Your task to perform on an android device: uninstall "ZOOM Cloud Meetings" Image 0: 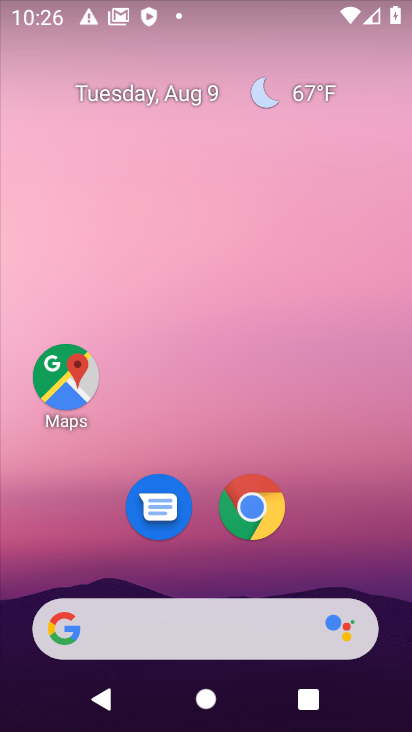
Step 0: drag from (292, 629) to (342, 139)
Your task to perform on an android device: uninstall "ZOOM Cloud Meetings" Image 1: 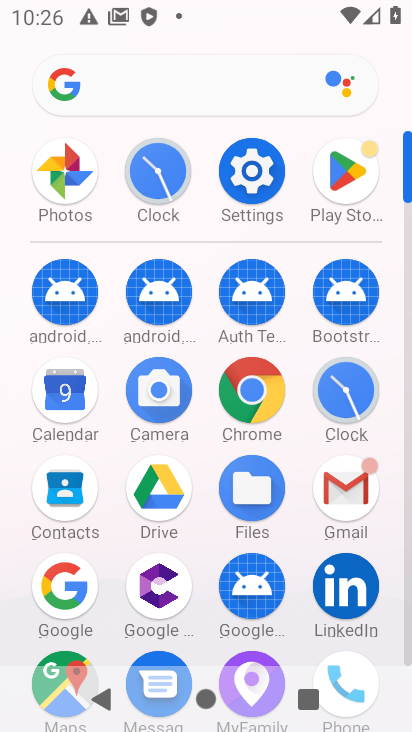
Step 1: click (352, 171)
Your task to perform on an android device: uninstall "ZOOM Cloud Meetings" Image 2: 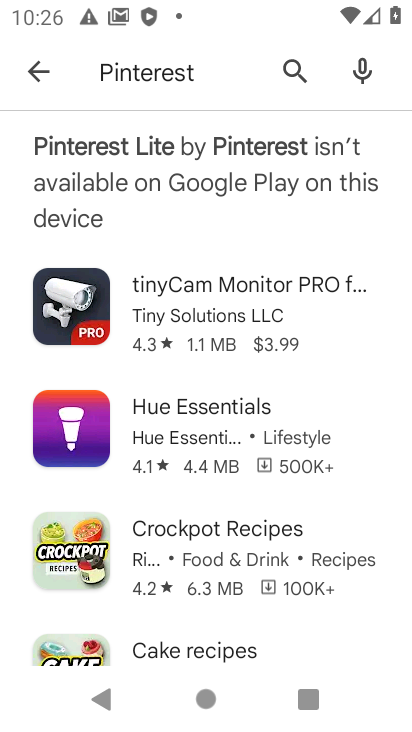
Step 2: click (295, 73)
Your task to perform on an android device: uninstall "ZOOM Cloud Meetings" Image 3: 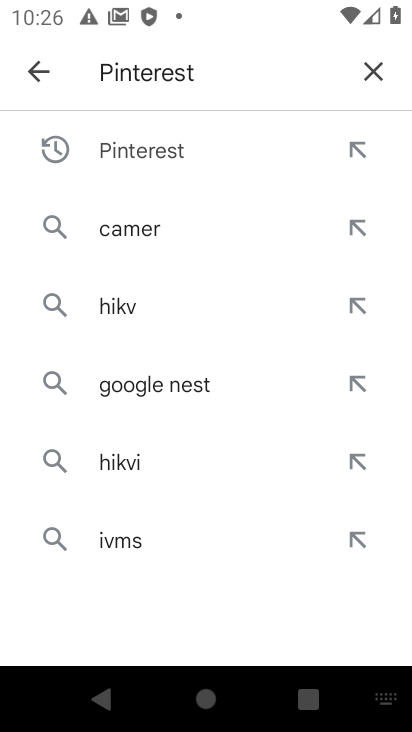
Step 3: click (373, 74)
Your task to perform on an android device: uninstall "ZOOM Cloud Meetings" Image 4: 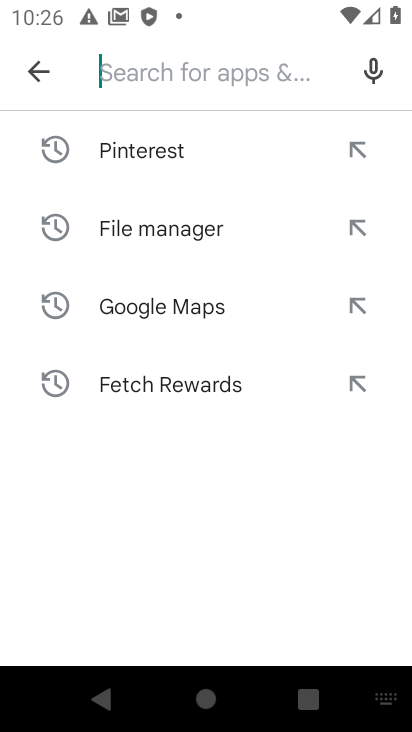
Step 4: type "ZOOM Cloud"
Your task to perform on an android device: uninstall "ZOOM Cloud Meetings" Image 5: 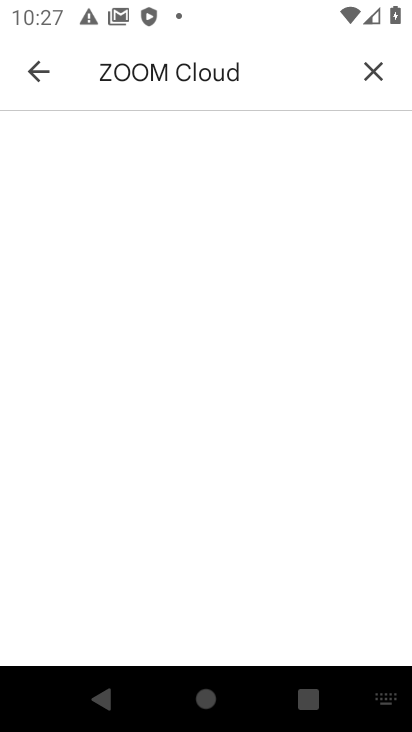
Step 5: press enter
Your task to perform on an android device: uninstall "ZOOM Cloud Meetings" Image 6: 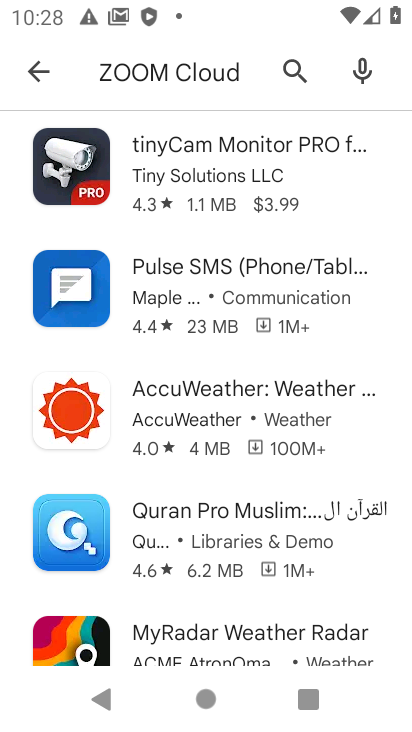
Step 6: task complete